Your task to perform on an android device: change the clock display to digital Image 0: 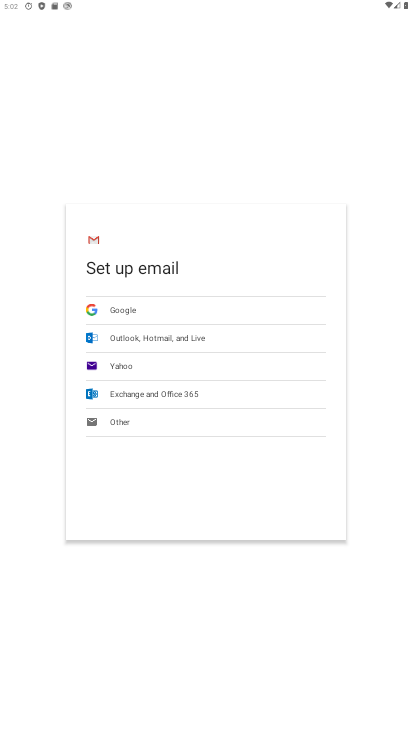
Step 0: press home button
Your task to perform on an android device: change the clock display to digital Image 1: 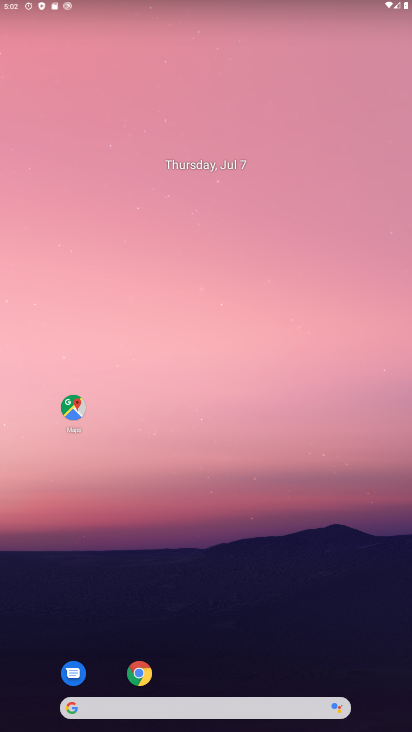
Step 1: drag from (258, 663) to (268, 137)
Your task to perform on an android device: change the clock display to digital Image 2: 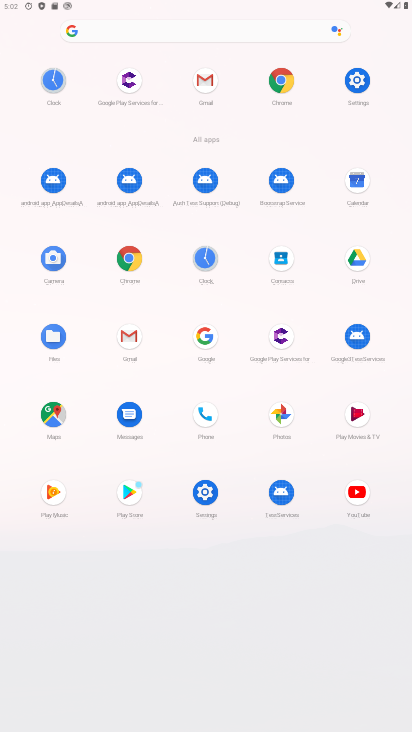
Step 2: click (204, 254)
Your task to perform on an android device: change the clock display to digital Image 3: 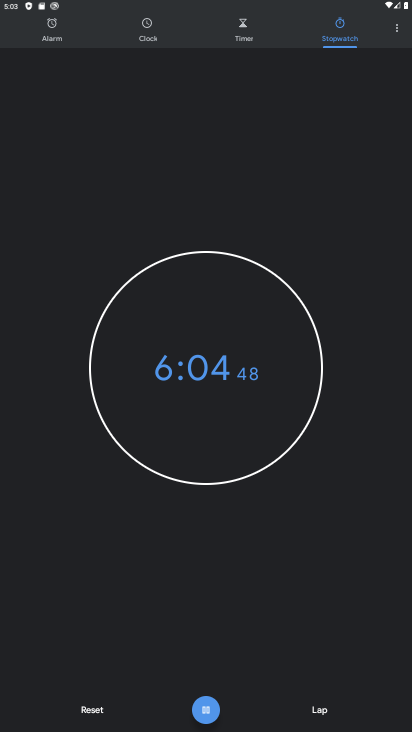
Step 3: click (403, 27)
Your task to perform on an android device: change the clock display to digital Image 4: 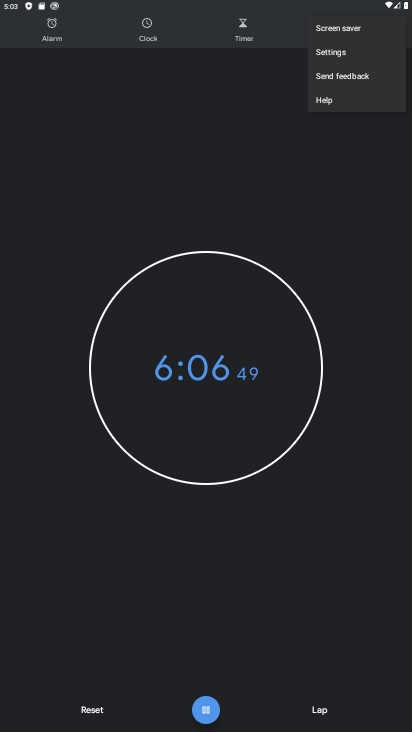
Step 4: click (366, 48)
Your task to perform on an android device: change the clock display to digital Image 5: 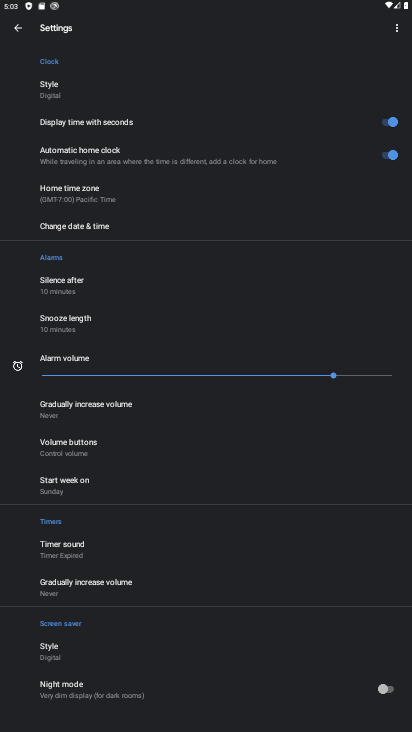
Step 5: task complete